Your task to perform on an android device: Open Google Maps and go to "Timeline" Image 0: 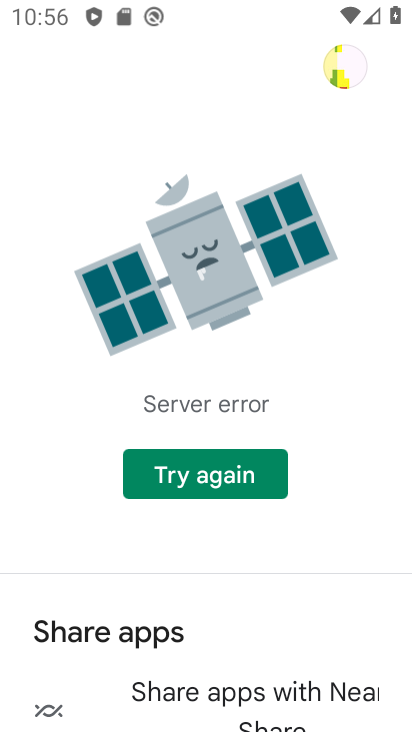
Step 0: press home button
Your task to perform on an android device: Open Google Maps and go to "Timeline" Image 1: 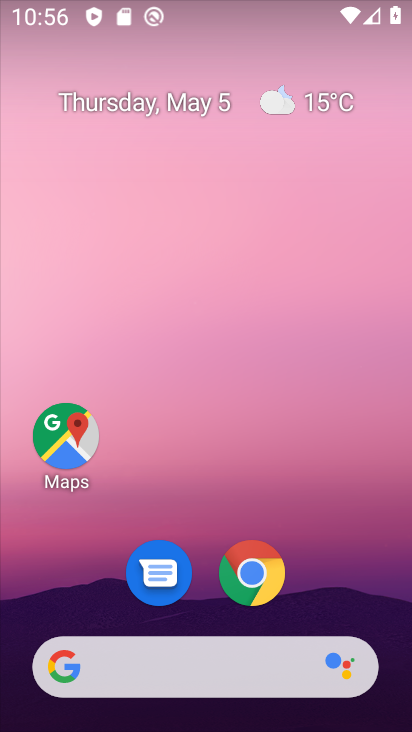
Step 1: click (74, 438)
Your task to perform on an android device: Open Google Maps and go to "Timeline" Image 2: 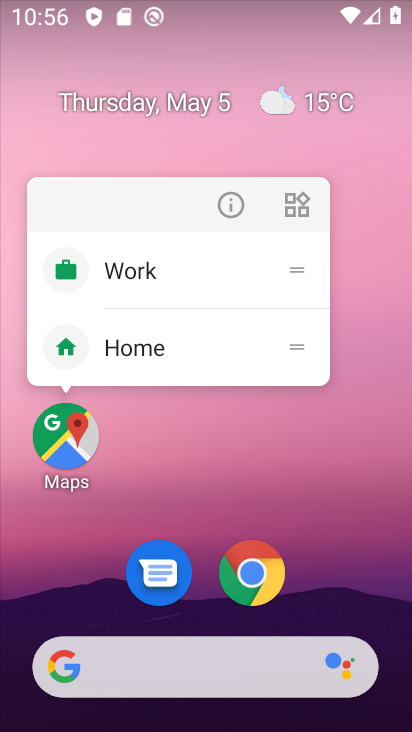
Step 2: click (77, 439)
Your task to perform on an android device: Open Google Maps and go to "Timeline" Image 3: 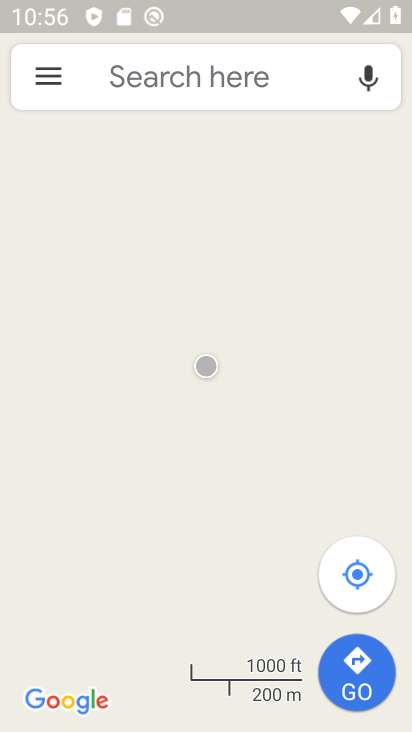
Step 3: click (52, 86)
Your task to perform on an android device: Open Google Maps and go to "Timeline" Image 4: 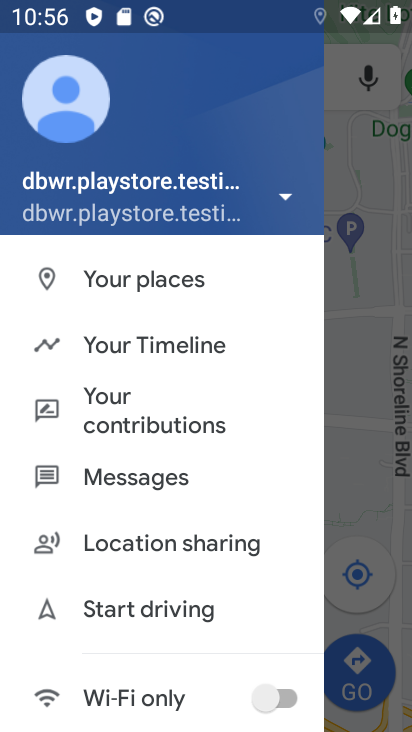
Step 4: click (201, 357)
Your task to perform on an android device: Open Google Maps and go to "Timeline" Image 5: 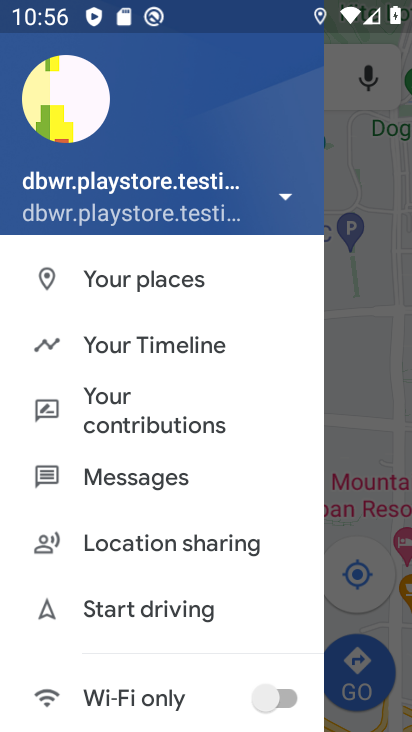
Step 5: click (194, 351)
Your task to perform on an android device: Open Google Maps and go to "Timeline" Image 6: 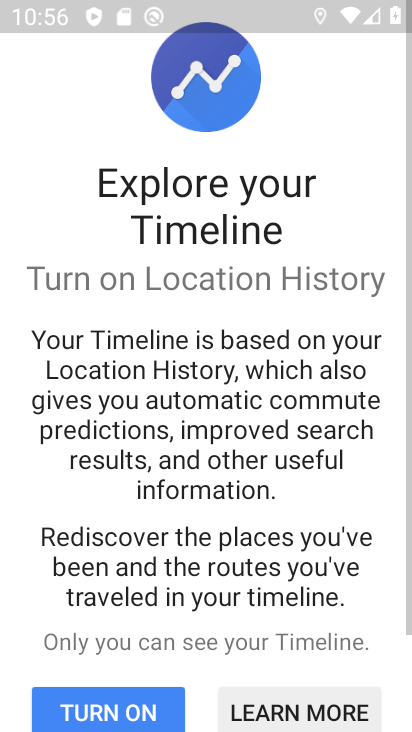
Step 6: drag from (222, 677) to (318, 356)
Your task to perform on an android device: Open Google Maps and go to "Timeline" Image 7: 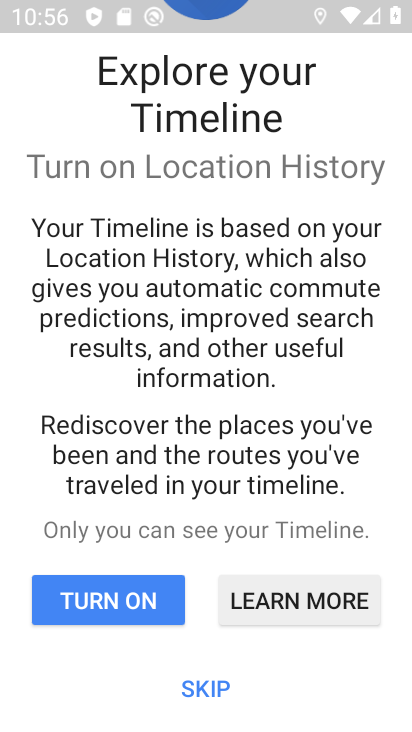
Step 7: drag from (210, 684) to (273, 625)
Your task to perform on an android device: Open Google Maps and go to "Timeline" Image 8: 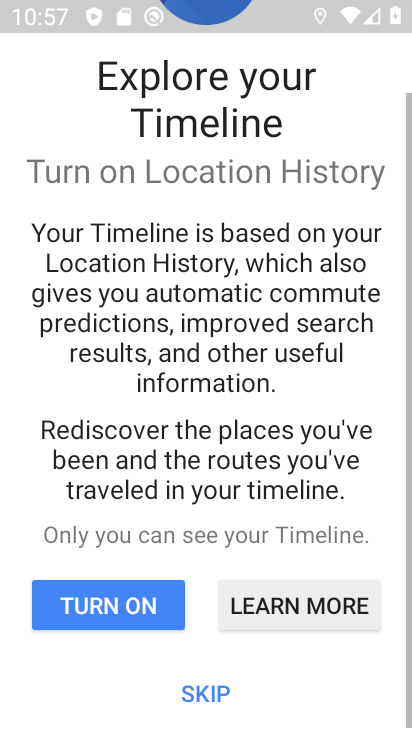
Step 8: click (232, 691)
Your task to perform on an android device: Open Google Maps and go to "Timeline" Image 9: 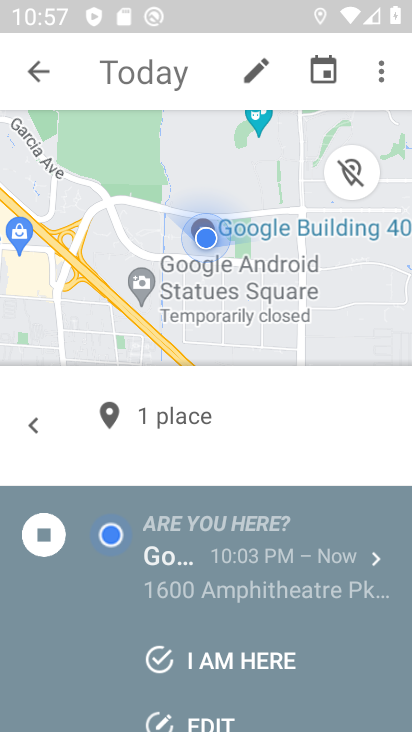
Step 9: task complete